Your task to perform on an android device: allow cookies in the chrome app Image 0: 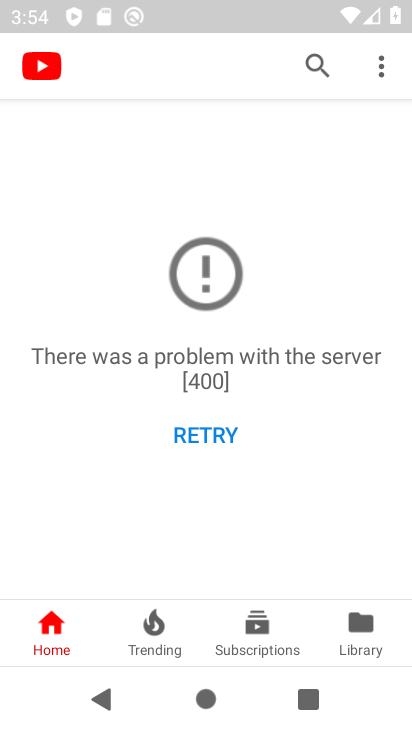
Step 0: press back button
Your task to perform on an android device: allow cookies in the chrome app Image 1: 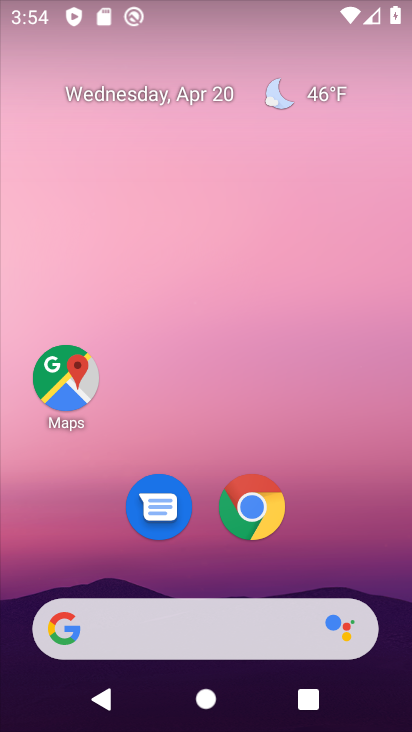
Step 1: click (249, 515)
Your task to perform on an android device: allow cookies in the chrome app Image 2: 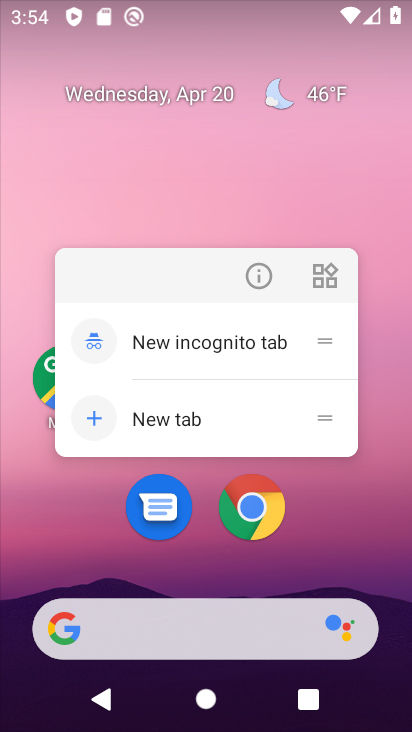
Step 2: click (249, 544)
Your task to perform on an android device: allow cookies in the chrome app Image 3: 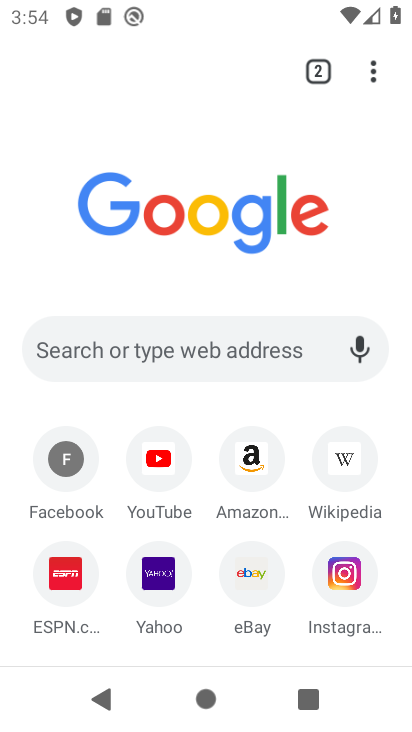
Step 3: drag from (376, 73) to (208, 508)
Your task to perform on an android device: allow cookies in the chrome app Image 4: 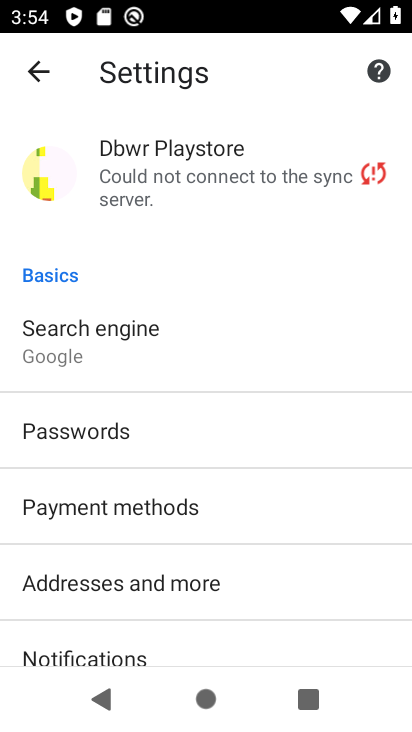
Step 4: drag from (179, 593) to (281, 194)
Your task to perform on an android device: allow cookies in the chrome app Image 5: 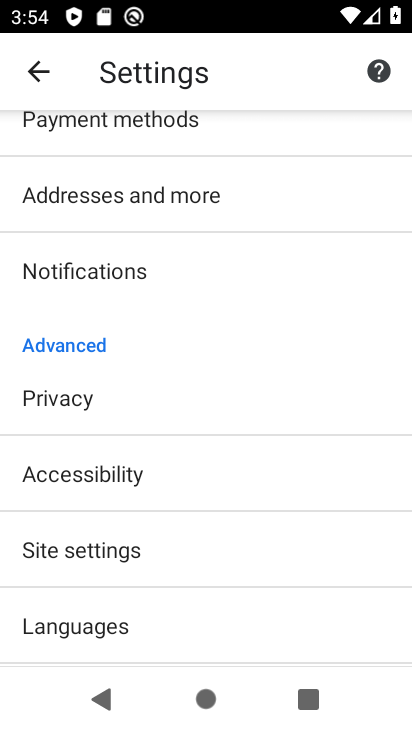
Step 5: click (167, 555)
Your task to perform on an android device: allow cookies in the chrome app Image 6: 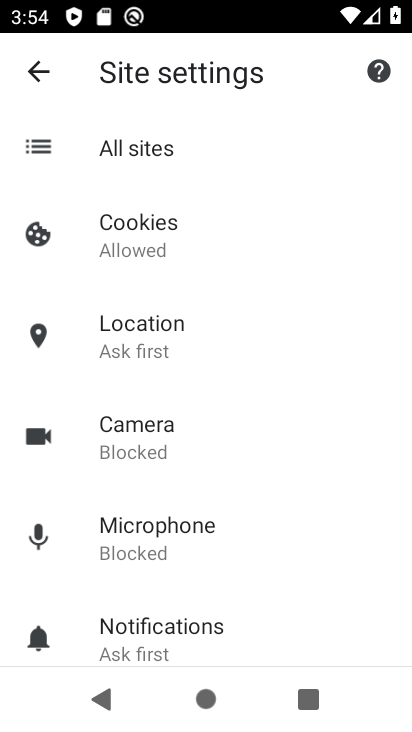
Step 6: click (199, 222)
Your task to perform on an android device: allow cookies in the chrome app Image 7: 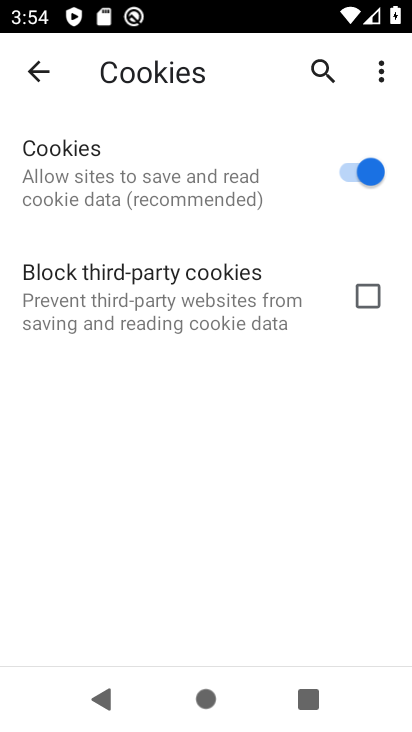
Step 7: task complete